Your task to perform on an android device: empty trash in google photos Image 0: 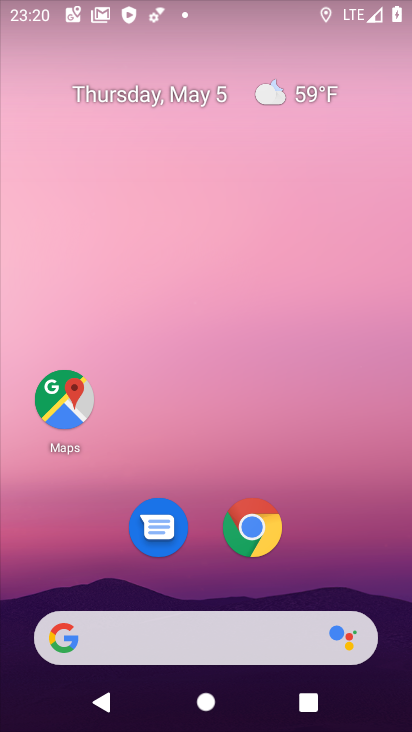
Step 0: drag from (210, 585) to (258, 74)
Your task to perform on an android device: empty trash in google photos Image 1: 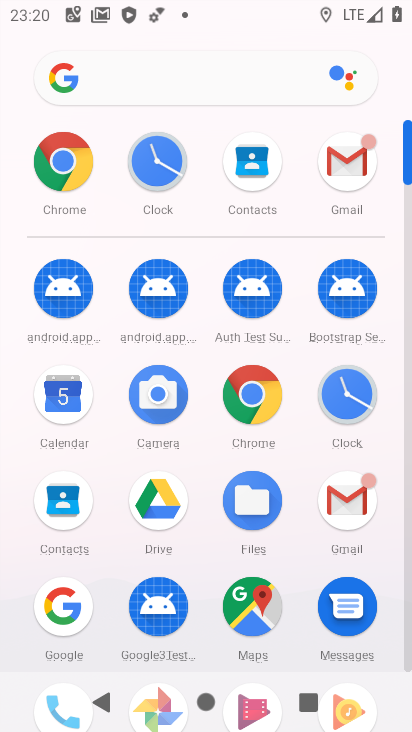
Step 1: drag from (210, 631) to (213, 347)
Your task to perform on an android device: empty trash in google photos Image 2: 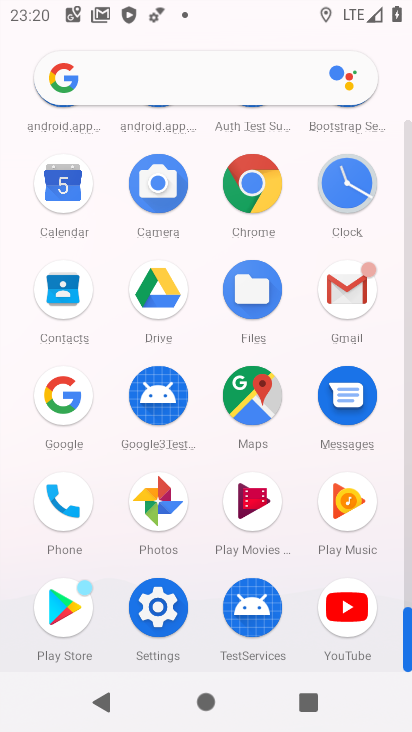
Step 2: click (156, 495)
Your task to perform on an android device: empty trash in google photos Image 3: 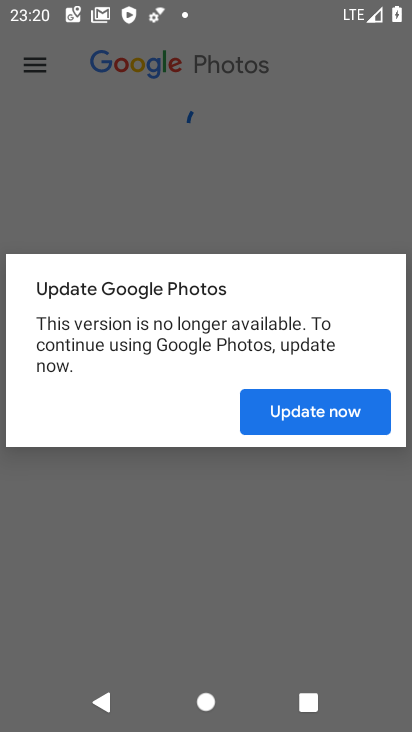
Step 3: click (275, 411)
Your task to perform on an android device: empty trash in google photos Image 4: 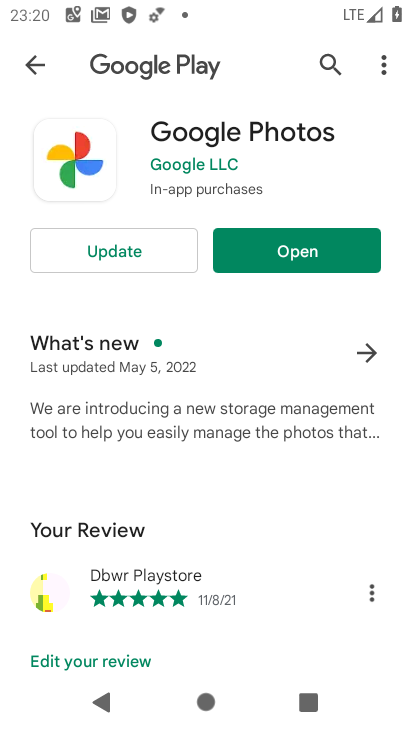
Step 4: click (133, 249)
Your task to perform on an android device: empty trash in google photos Image 5: 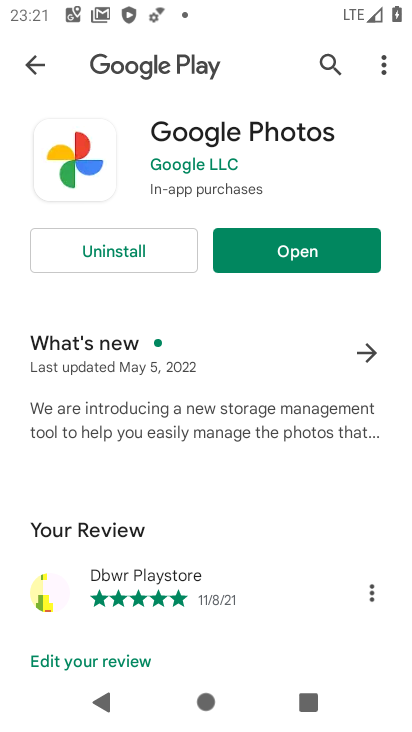
Step 5: click (337, 254)
Your task to perform on an android device: empty trash in google photos Image 6: 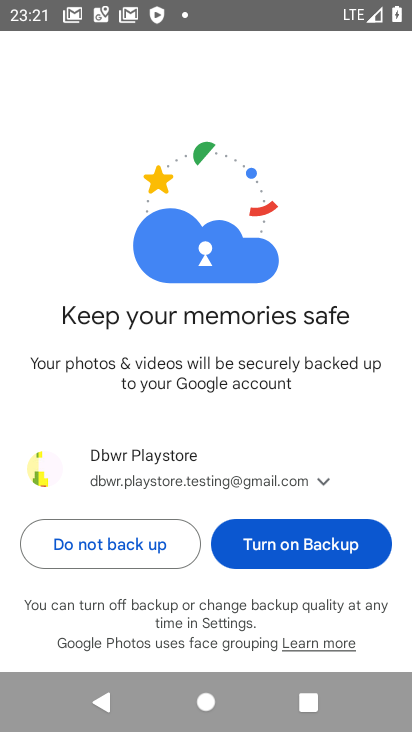
Step 6: click (171, 552)
Your task to perform on an android device: empty trash in google photos Image 7: 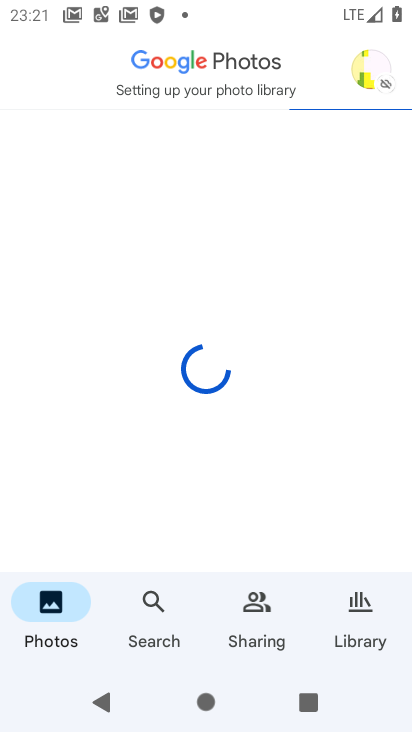
Step 7: click (364, 597)
Your task to perform on an android device: empty trash in google photos Image 8: 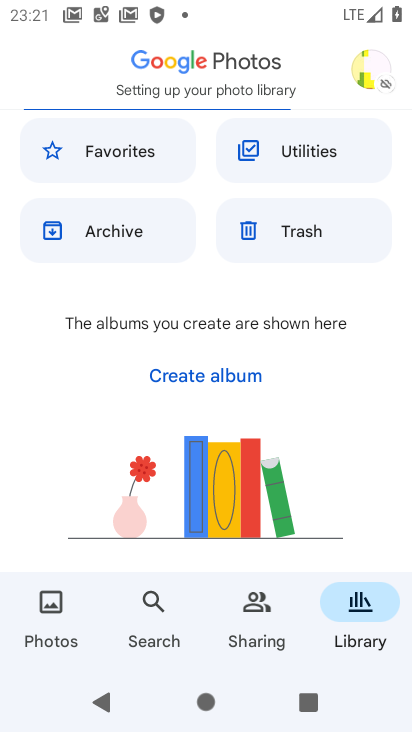
Step 8: click (288, 230)
Your task to perform on an android device: empty trash in google photos Image 9: 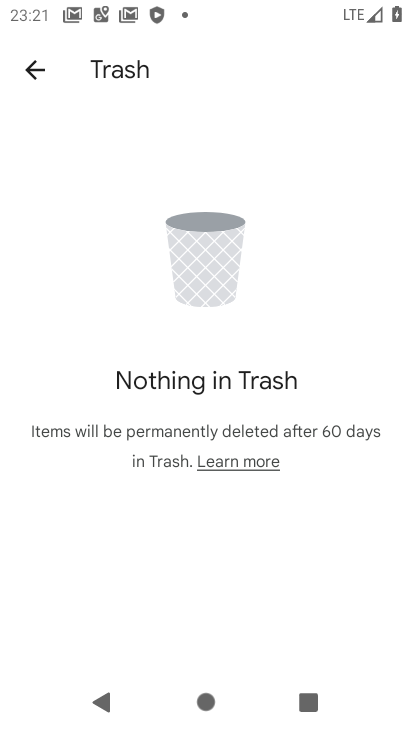
Step 9: task complete